Your task to perform on an android device: find which apps use the phone's location Image 0: 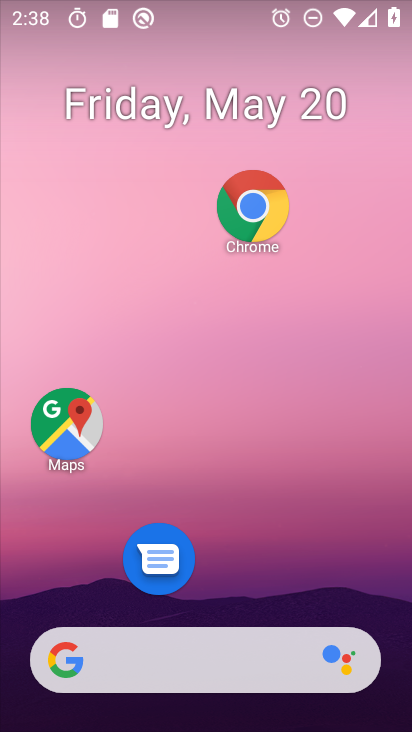
Step 0: drag from (200, 626) to (202, 207)
Your task to perform on an android device: find which apps use the phone's location Image 1: 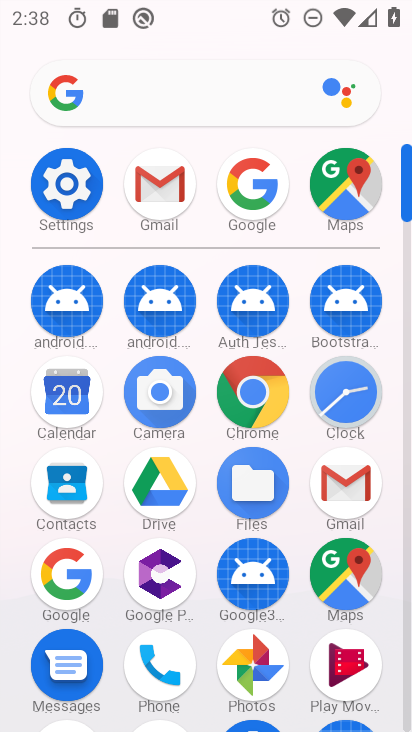
Step 1: click (83, 177)
Your task to perform on an android device: find which apps use the phone's location Image 2: 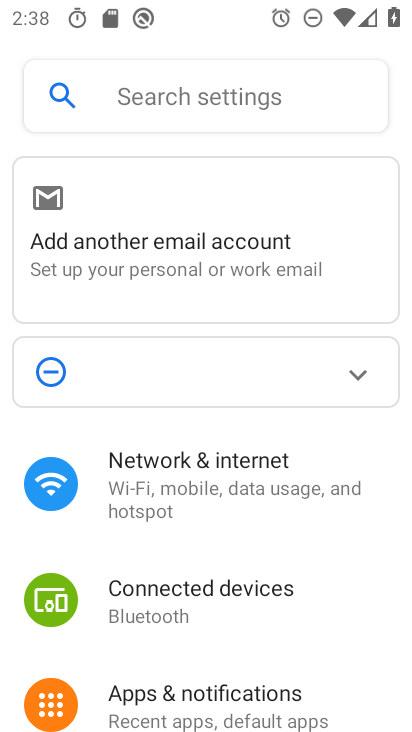
Step 2: drag from (111, 499) to (118, 70)
Your task to perform on an android device: find which apps use the phone's location Image 3: 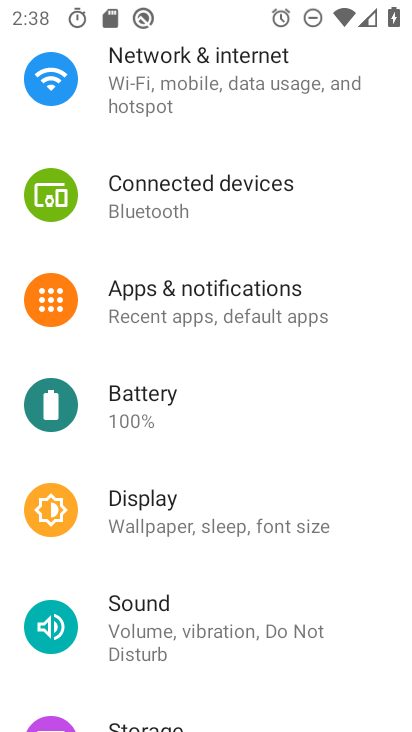
Step 3: drag from (240, 565) to (227, 147)
Your task to perform on an android device: find which apps use the phone's location Image 4: 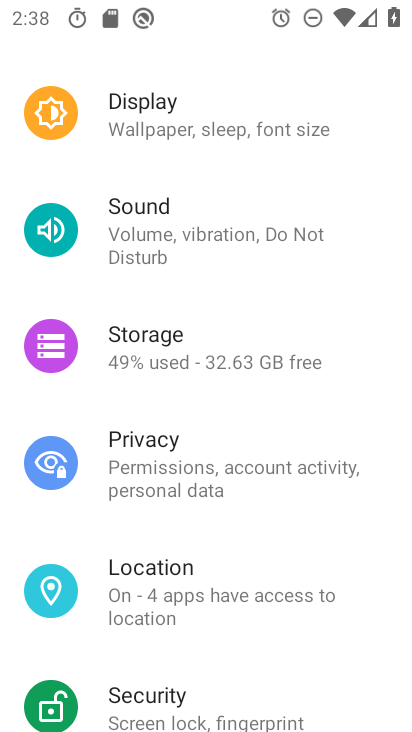
Step 4: click (196, 585)
Your task to perform on an android device: find which apps use the phone's location Image 5: 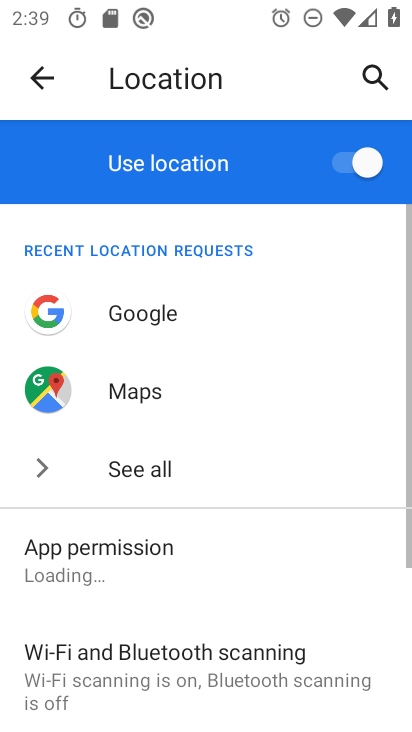
Step 5: click (161, 578)
Your task to perform on an android device: find which apps use the phone's location Image 6: 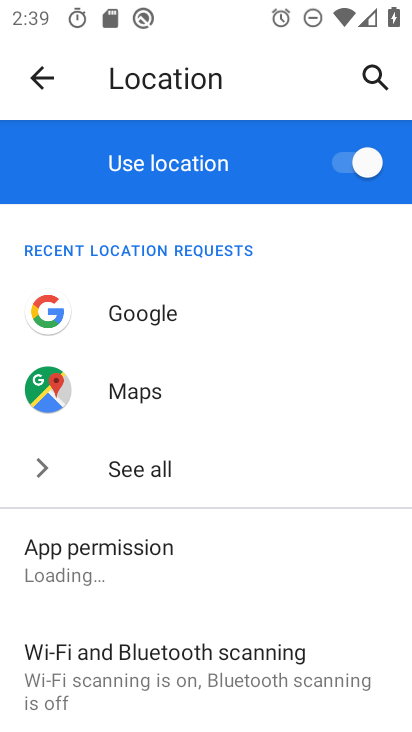
Step 6: task complete